Your task to perform on an android device: Open Google Maps Image 0: 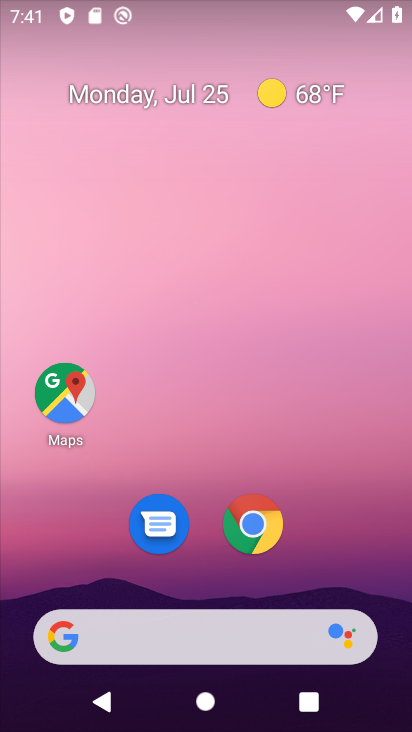
Step 0: click (59, 387)
Your task to perform on an android device: Open Google Maps Image 1: 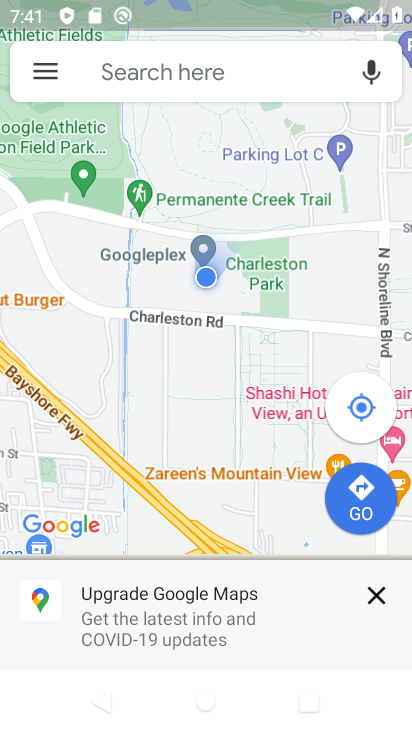
Step 1: task complete